Your task to perform on an android device: change the clock display to show seconds Image 0: 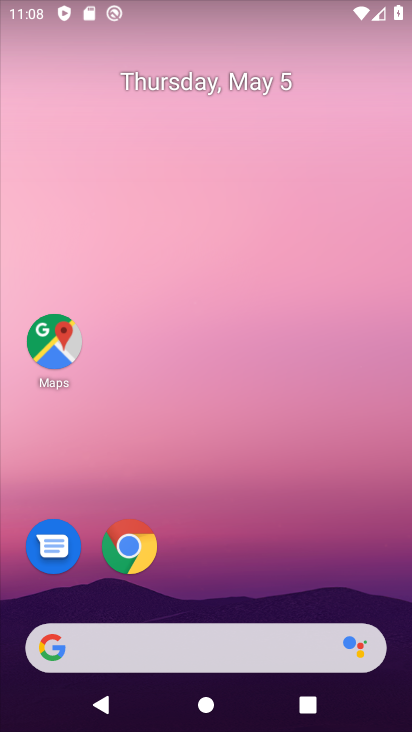
Step 0: drag from (213, 597) to (70, 137)
Your task to perform on an android device: change the clock display to show seconds Image 1: 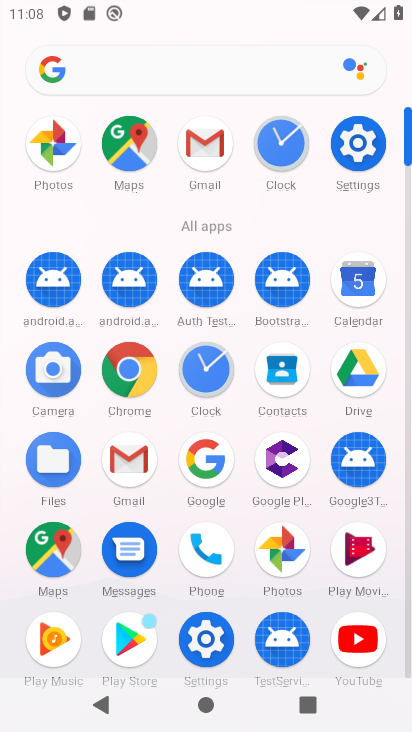
Step 1: click (208, 367)
Your task to perform on an android device: change the clock display to show seconds Image 2: 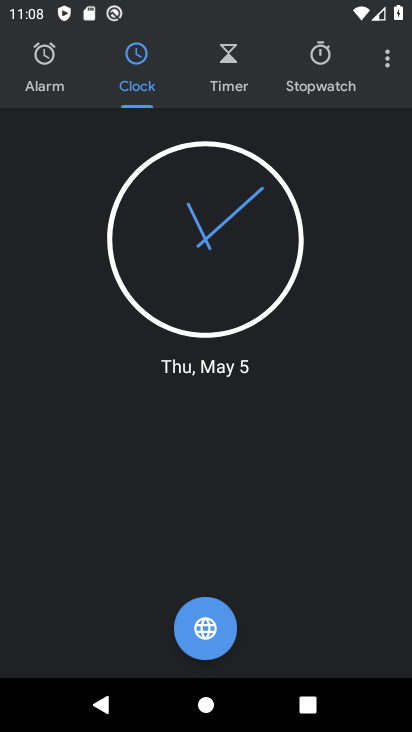
Step 2: click (383, 68)
Your task to perform on an android device: change the clock display to show seconds Image 3: 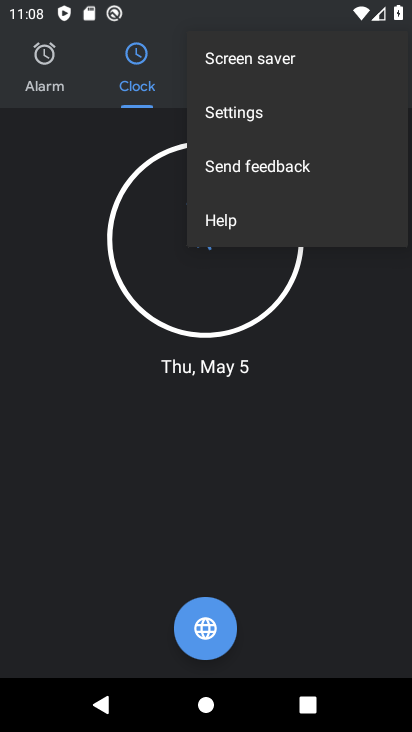
Step 3: click (272, 117)
Your task to perform on an android device: change the clock display to show seconds Image 4: 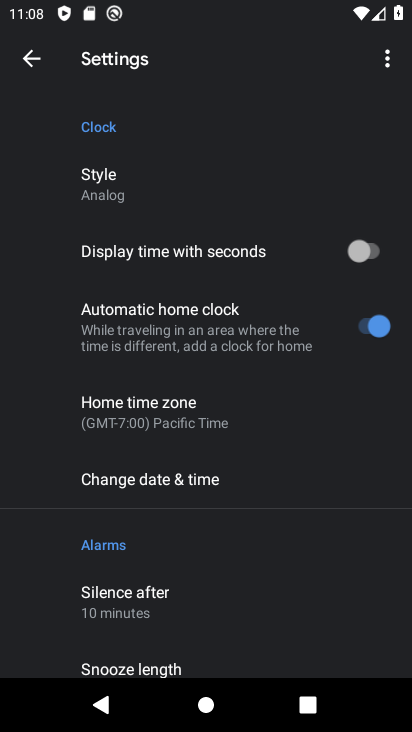
Step 4: click (232, 273)
Your task to perform on an android device: change the clock display to show seconds Image 5: 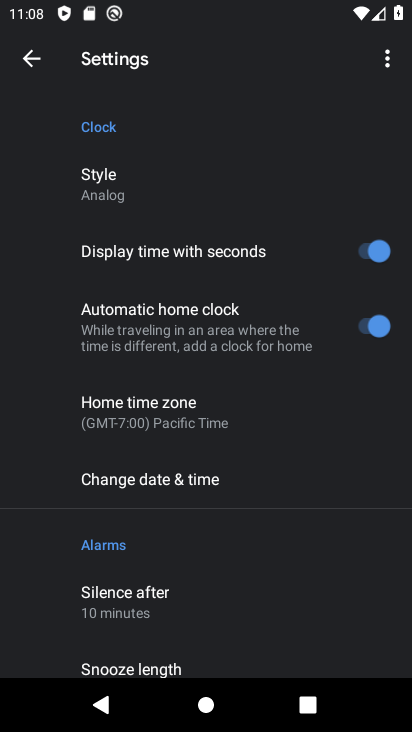
Step 5: task complete